Your task to perform on an android device: Open privacy settings Image 0: 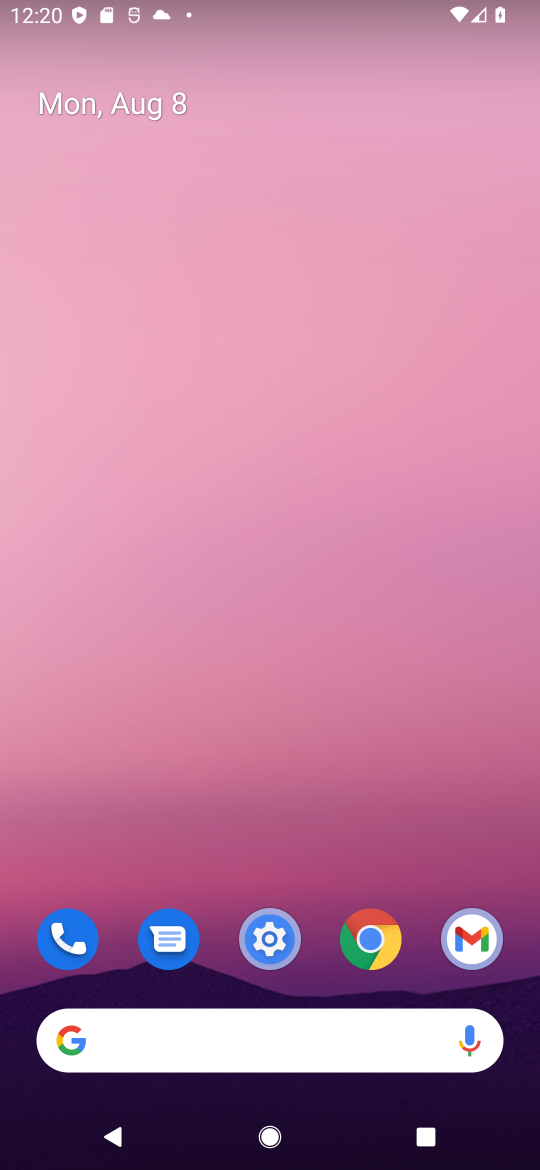
Step 0: click (269, 938)
Your task to perform on an android device: Open privacy settings Image 1: 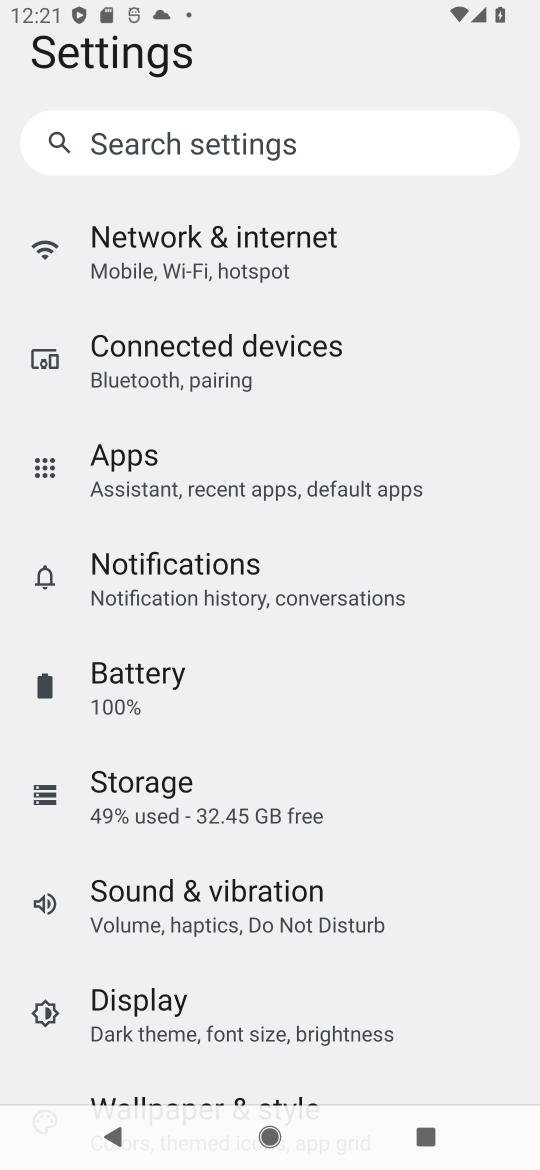
Step 1: drag from (207, 862) to (274, 735)
Your task to perform on an android device: Open privacy settings Image 2: 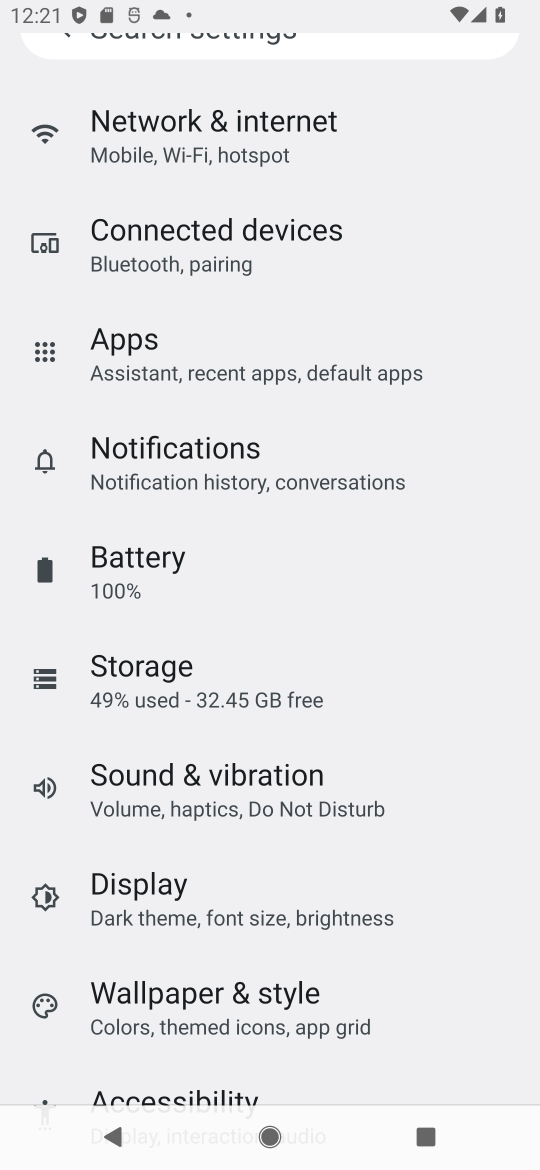
Step 2: drag from (210, 957) to (269, 811)
Your task to perform on an android device: Open privacy settings Image 3: 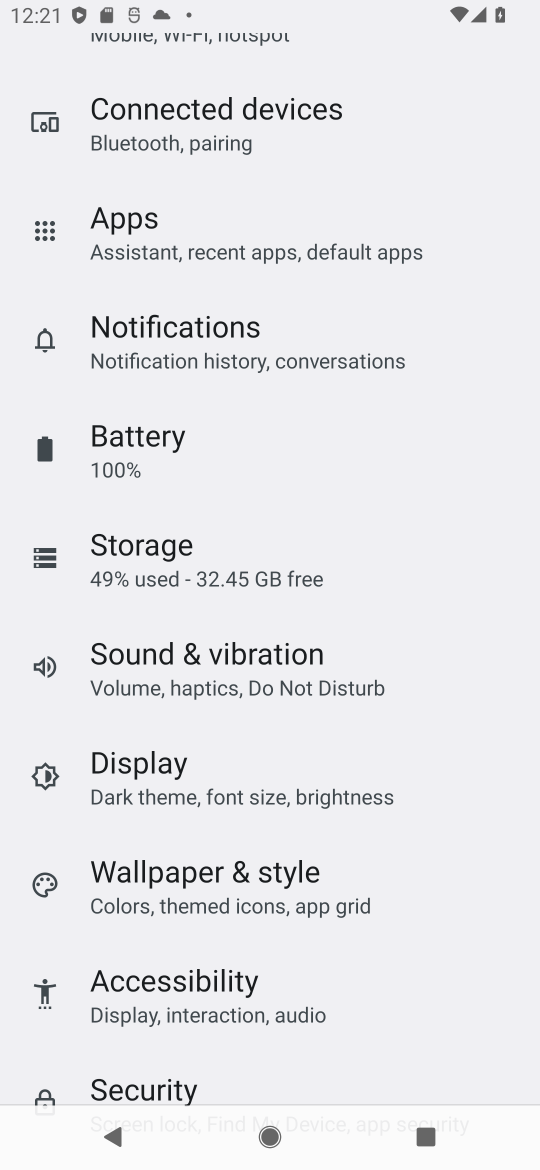
Step 3: drag from (196, 943) to (267, 789)
Your task to perform on an android device: Open privacy settings Image 4: 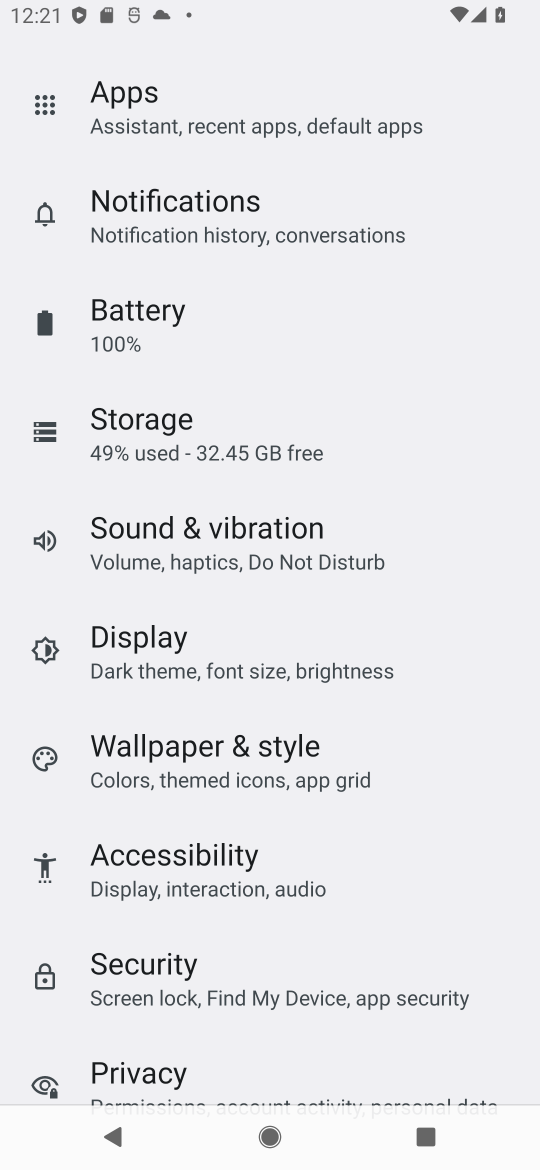
Step 4: drag from (175, 920) to (293, 734)
Your task to perform on an android device: Open privacy settings Image 5: 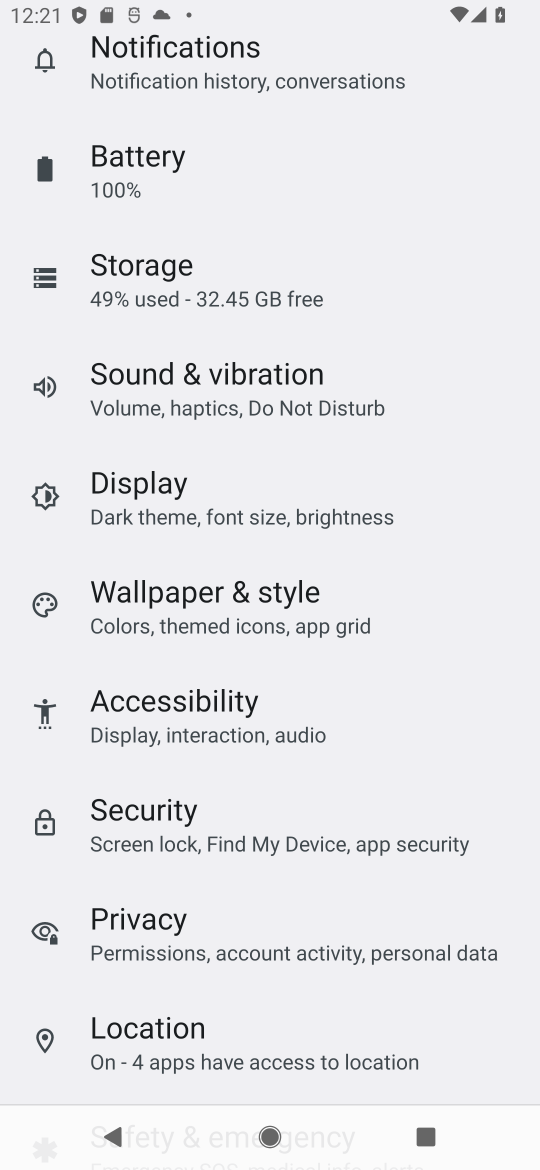
Step 5: click (148, 922)
Your task to perform on an android device: Open privacy settings Image 6: 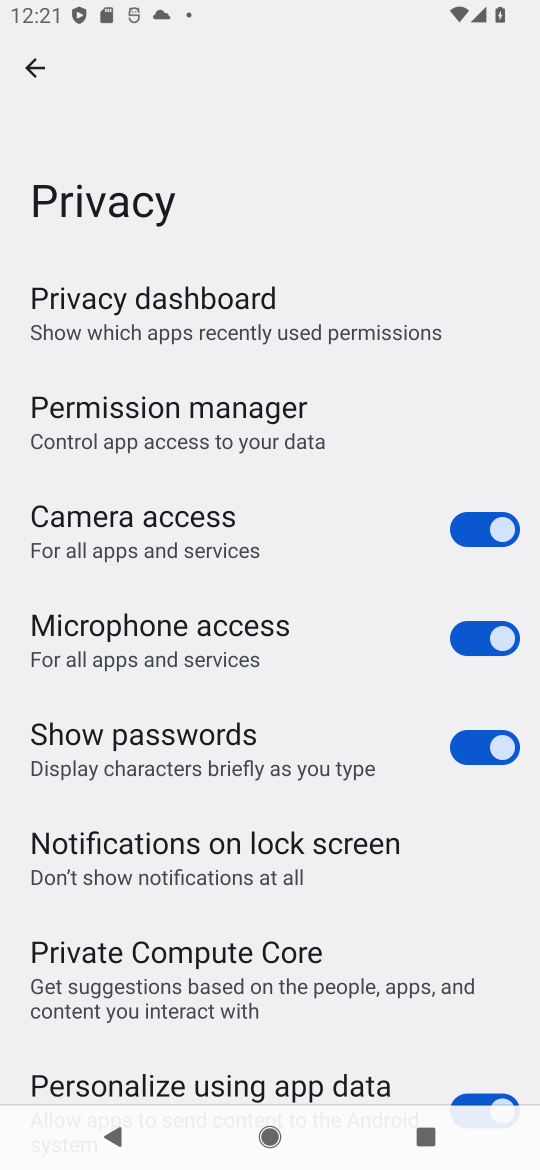
Step 6: task complete